Your task to perform on an android device: Show me productivity apps on the Play Store Image 0: 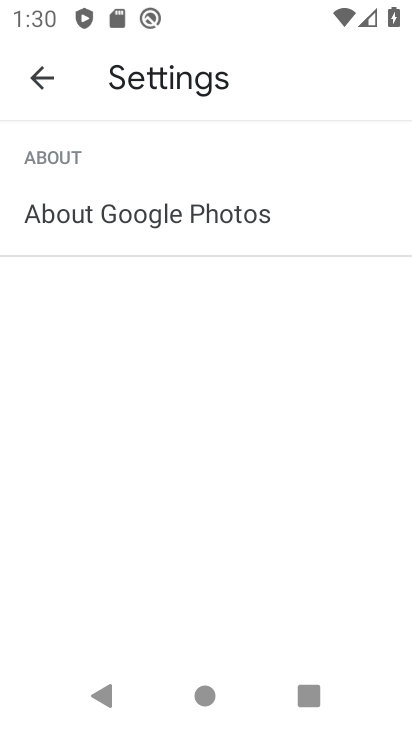
Step 0: press home button
Your task to perform on an android device: Show me productivity apps on the Play Store Image 1: 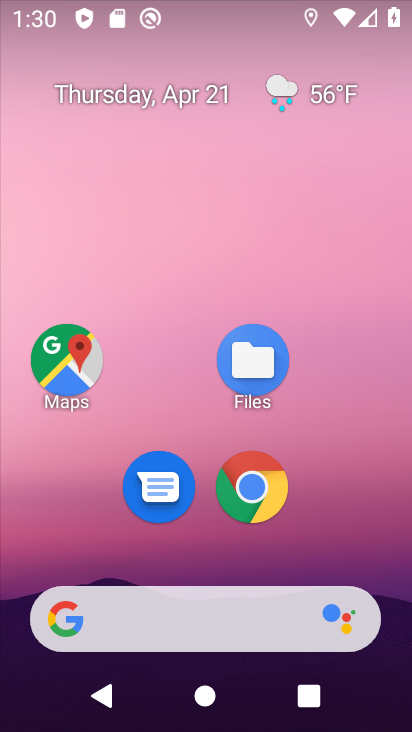
Step 1: drag from (347, 530) to (347, 207)
Your task to perform on an android device: Show me productivity apps on the Play Store Image 2: 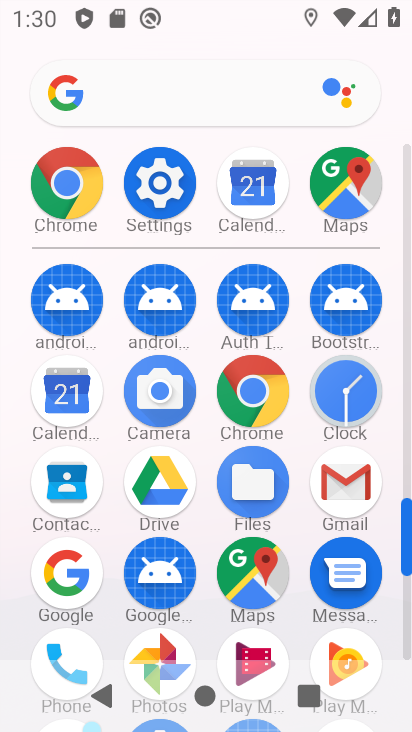
Step 2: drag from (215, 614) to (225, 302)
Your task to perform on an android device: Show me productivity apps on the Play Store Image 3: 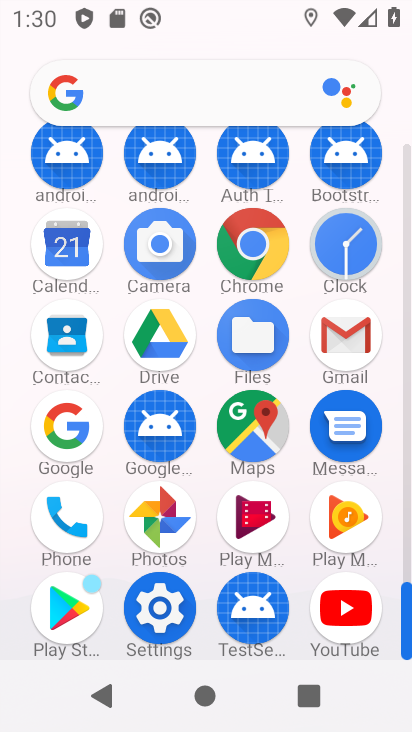
Step 3: click (40, 619)
Your task to perform on an android device: Show me productivity apps on the Play Store Image 4: 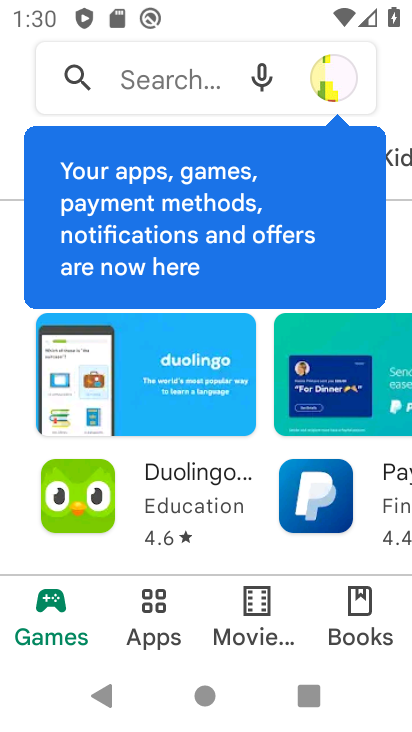
Step 4: click (163, 610)
Your task to perform on an android device: Show me productivity apps on the Play Store Image 5: 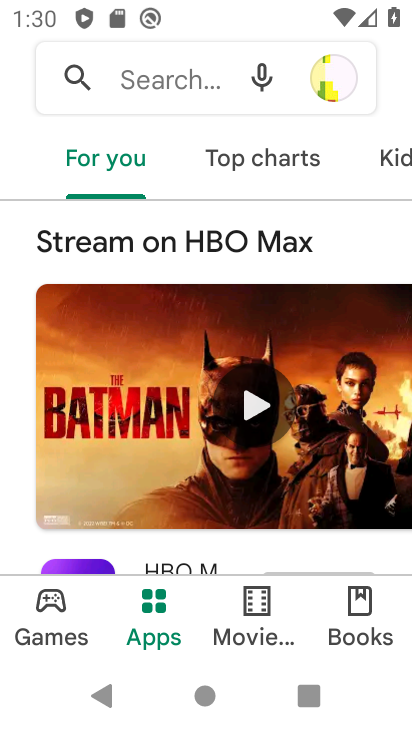
Step 5: drag from (321, 161) to (80, 147)
Your task to perform on an android device: Show me productivity apps on the Play Store Image 6: 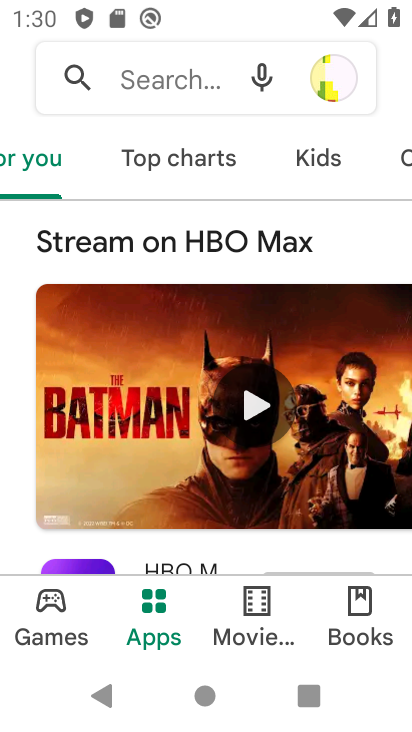
Step 6: drag from (345, 182) to (1, 170)
Your task to perform on an android device: Show me productivity apps on the Play Store Image 7: 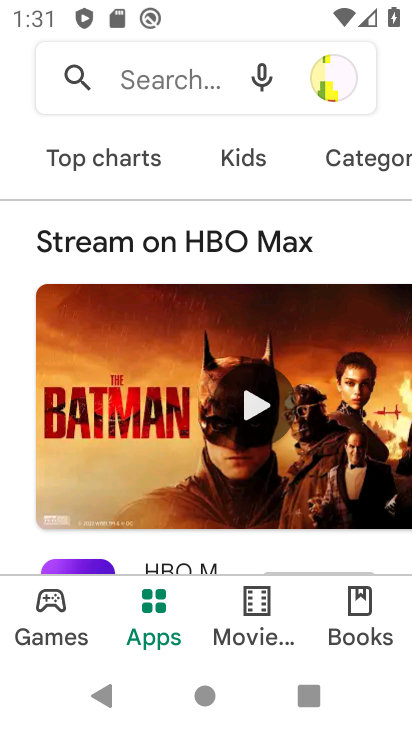
Step 7: click (353, 161)
Your task to perform on an android device: Show me productivity apps on the Play Store Image 8: 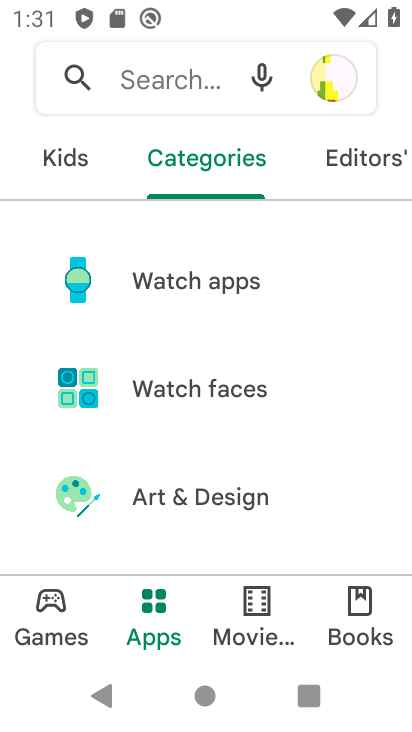
Step 8: drag from (318, 491) to (357, 248)
Your task to perform on an android device: Show me productivity apps on the Play Store Image 9: 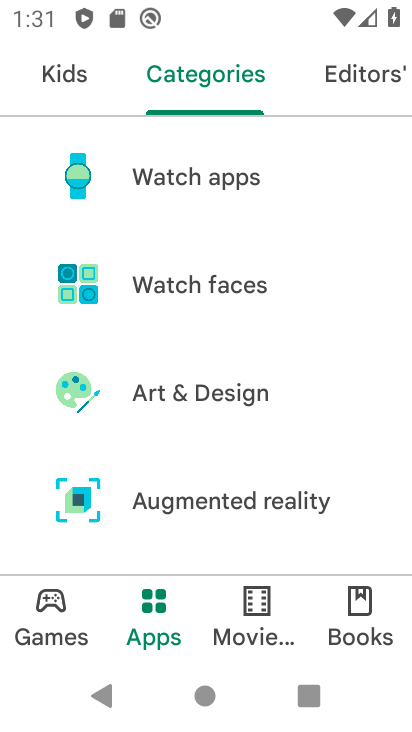
Step 9: drag from (355, 518) to (332, 212)
Your task to perform on an android device: Show me productivity apps on the Play Store Image 10: 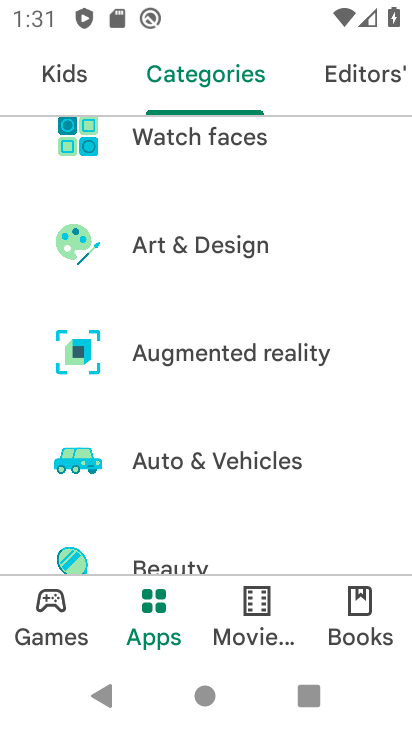
Step 10: drag from (342, 510) to (343, 207)
Your task to perform on an android device: Show me productivity apps on the Play Store Image 11: 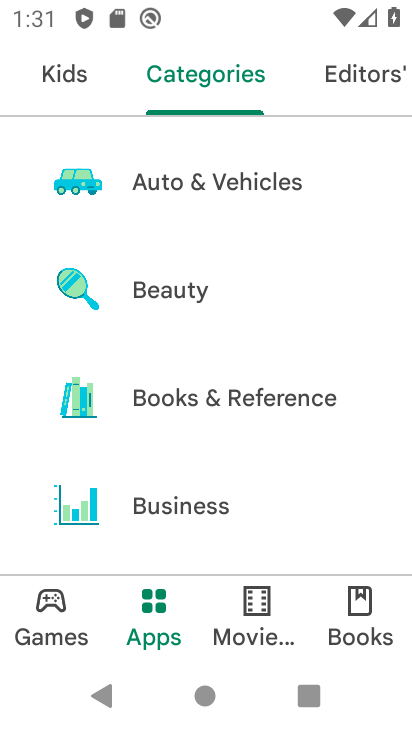
Step 11: drag from (306, 508) to (328, 230)
Your task to perform on an android device: Show me productivity apps on the Play Store Image 12: 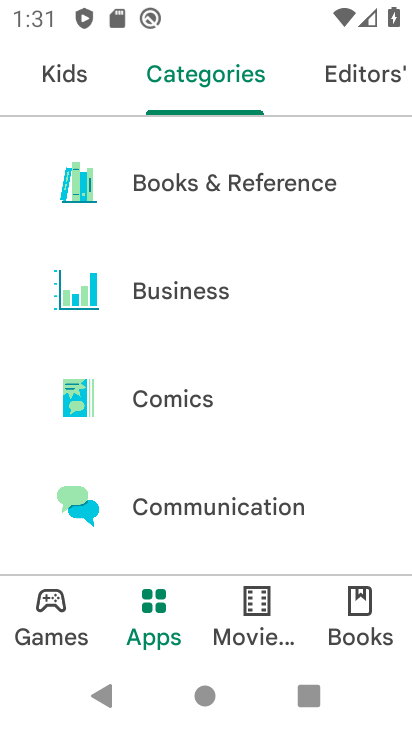
Step 12: drag from (289, 503) to (328, 228)
Your task to perform on an android device: Show me productivity apps on the Play Store Image 13: 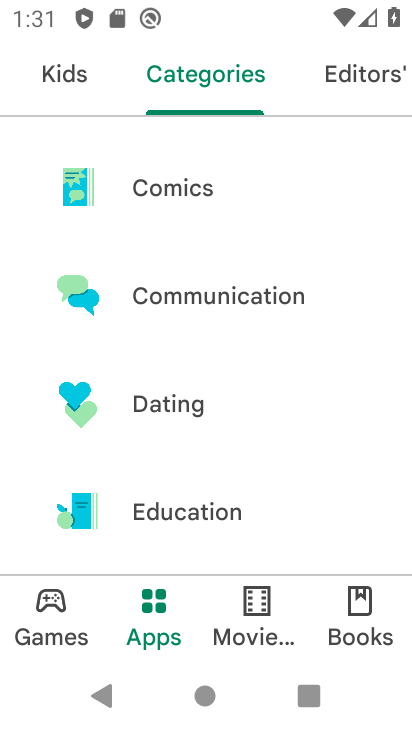
Step 13: drag from (327, 506) to (346, 236)
Your task to perform on an android device: Show me productivity apps on the Play Store Image 14: 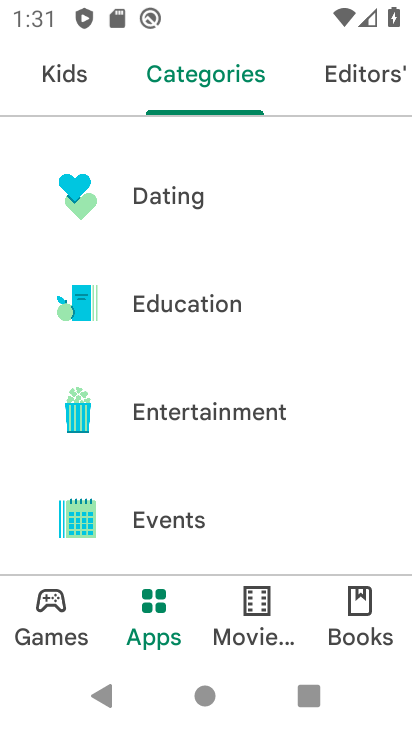
Step 14: drag from (313, 488) to (323, 243)
Your task to perform on an android device: Show me productivity apps on the Play Store Image 15: 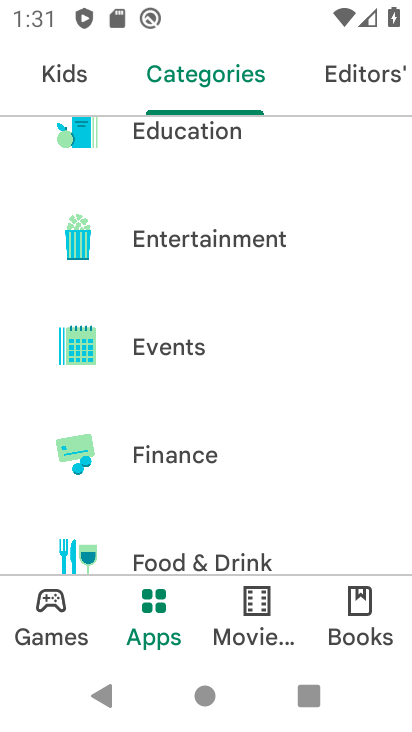
Step 15: drag from (289, 498) to (302, 237)
Your task to perform on an android device: Show me productivity apps on the Play Store Image 16: 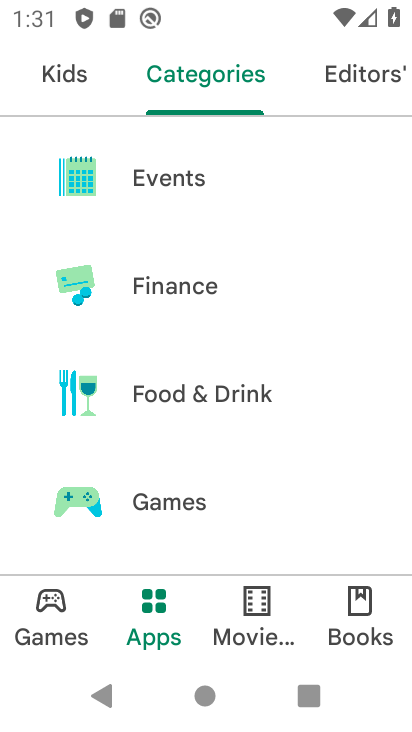
Step 16: drag from (283, 496) to (295, 257)
Your task to perform on an android device: Show me productivity apps on the Play Store Image 17: 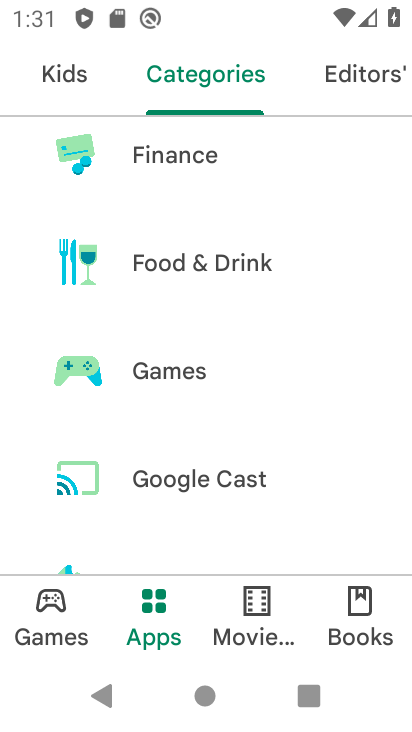
Step 17: drag from (317, 463) to (308, 234)
Your task to perform on an android device: Show me productivity apps on the Play Store Image 18: 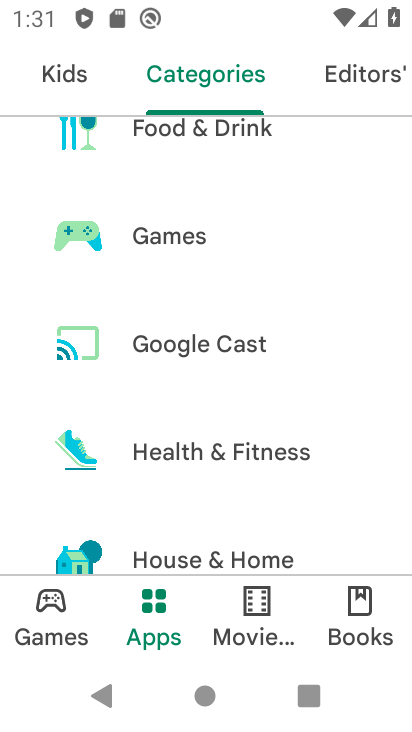
Step 18: drag from (288, 537) to (320, 245)
Your task to perform on an android device: Show me productivity apps on the Play Store Image 19: 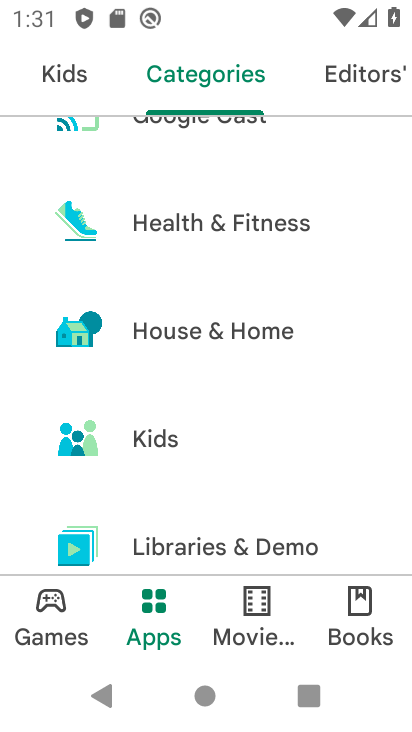
Step 19: drag from (287, 486) to (313, 233)
Your task to perform on an android device: Show me productivity apps on the Play Store Image 20: 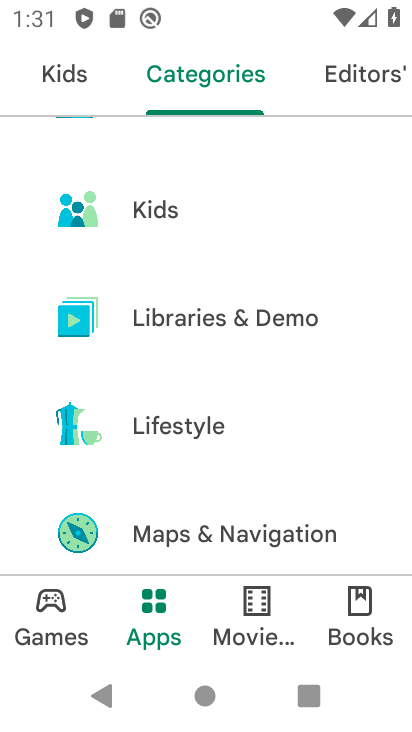
Step 20: drag from (258, 509) to (320, 196)
Your task to perform on an android device: Show me productivity apps on the Play Store Image 21: 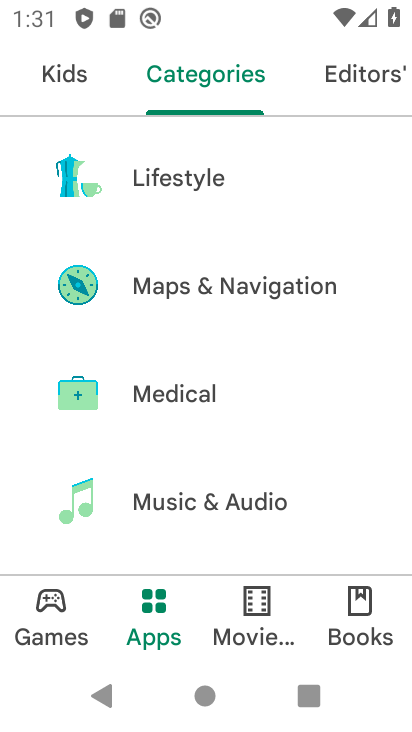
Step 21: drag from (321, 400) to (363, 157)
Your task to perform on an android device: Show me productivity apps on the Play Store Image 22: 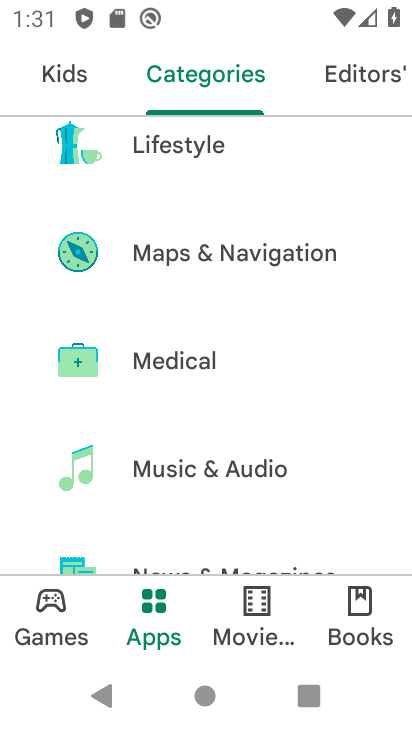
Step 22: drag from (316, 480) to (329, 203)
Your task to perform on an android device: Show me productivity apps on the Play Store Image 23: 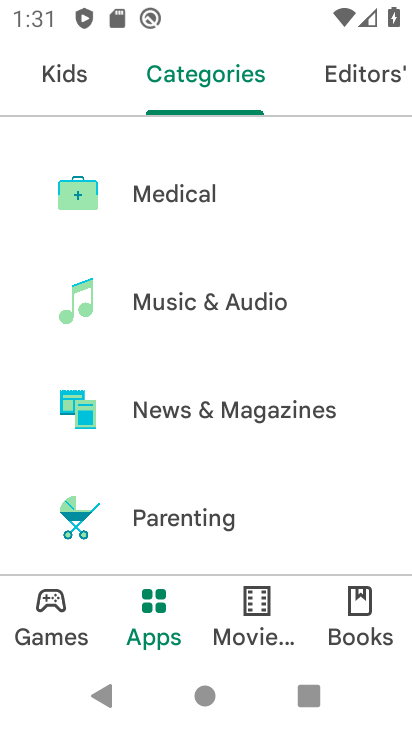
Step 23: drag from (298, 453) to (340, 230)
Your task to perform on an android device: Show me productivity apps on the Play Store Image 24: 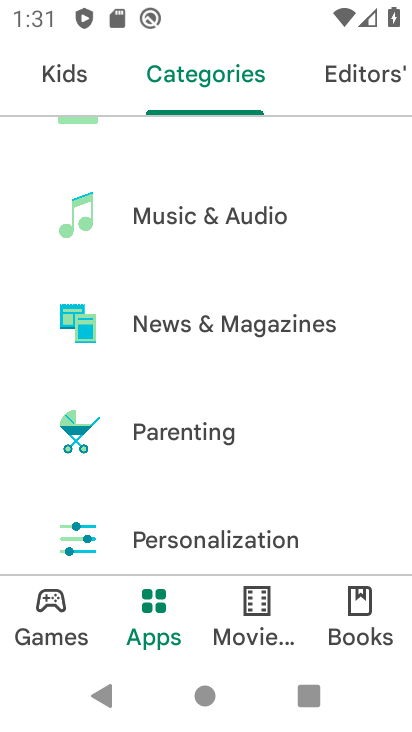
Step 24: drag from (309, 427) to (325, 270)
Your task to perform on an android device: Show me productivity apps on the Play Store Image 25: 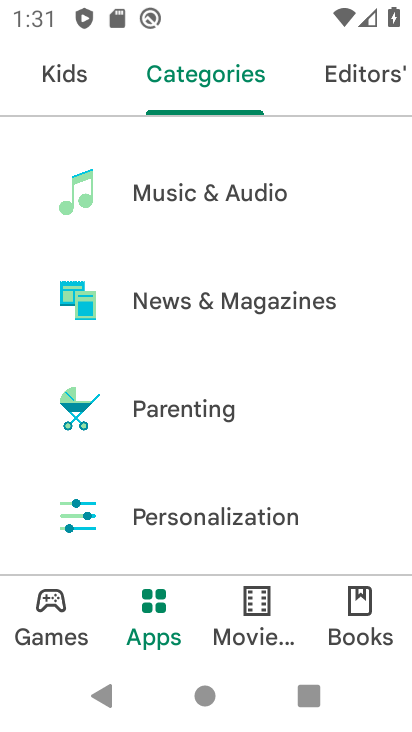
Step 25: drag from (299, 491) to (338, 234)
Your task to perform on an android device: Show me productivity apps on the Play Store Image 26: 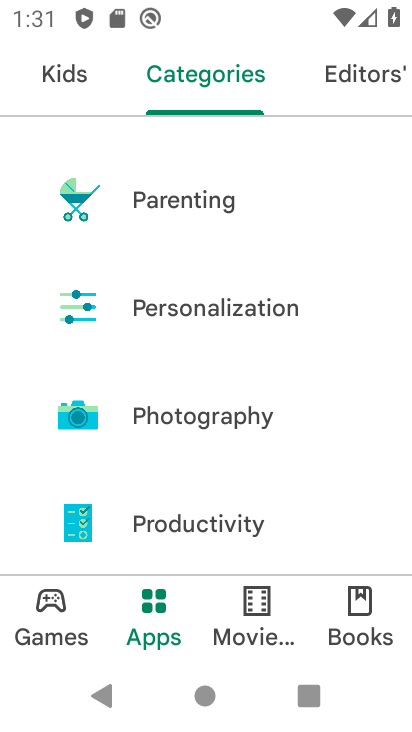
Step 26: click (226, 518)
Your task to perform on an android device: Show me productivity apps on the Play Store Image 27: 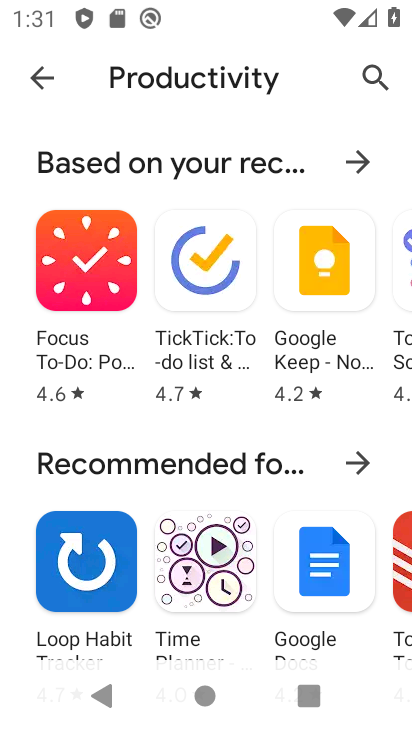
Step 27: task complete